Your task to perform on an android device: Go to display settings Image 0: 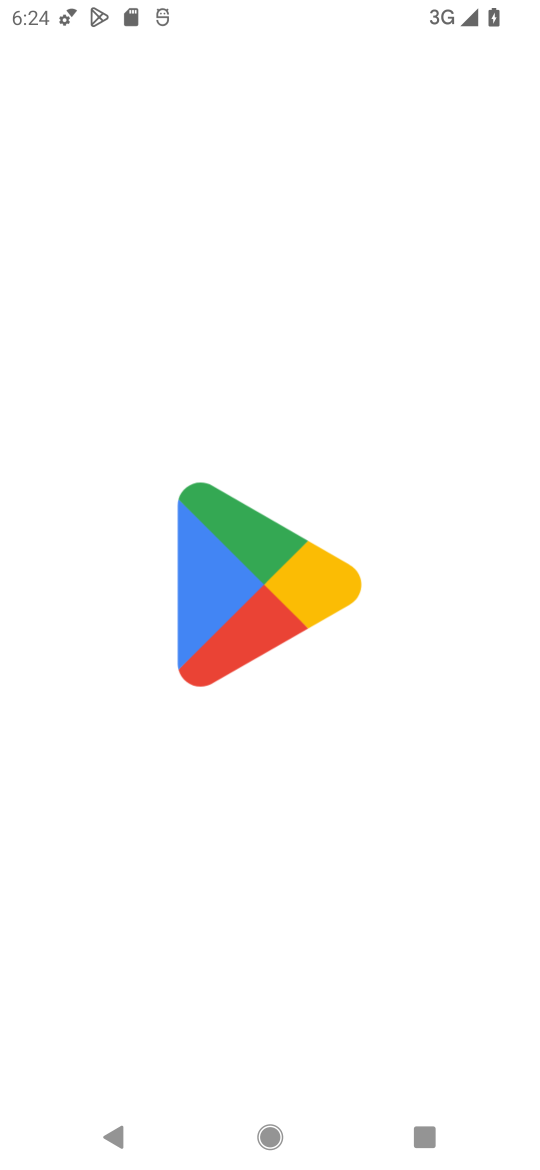
Step 0: press home button
Your task to perform on an android device: Go to display settings Image 1: 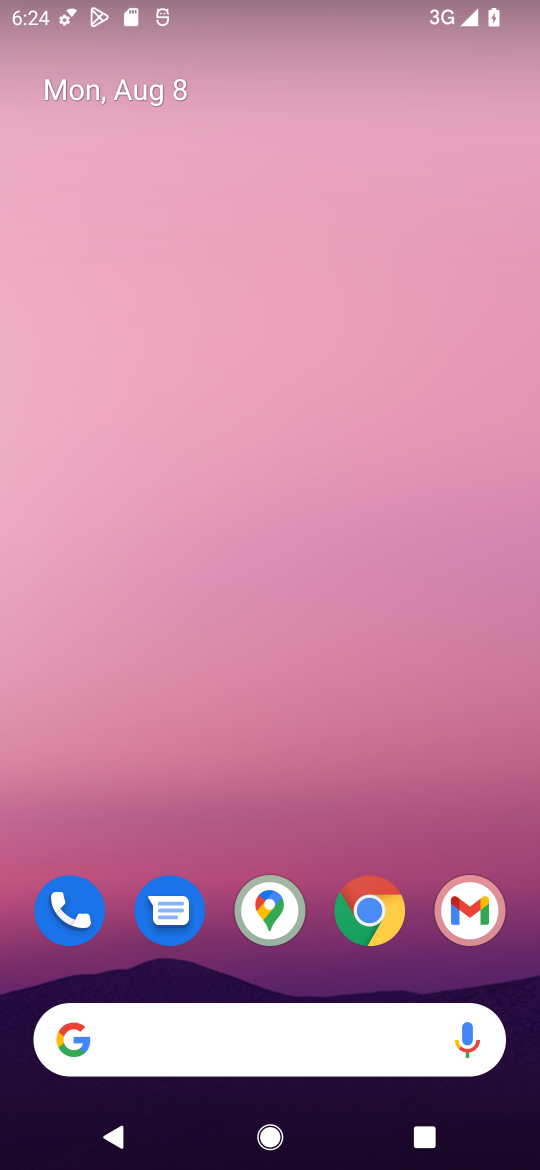
Step 1: drag from (173, 779) to (137, 133)
Your task to perform on an android device: Go to display settings Image 2: 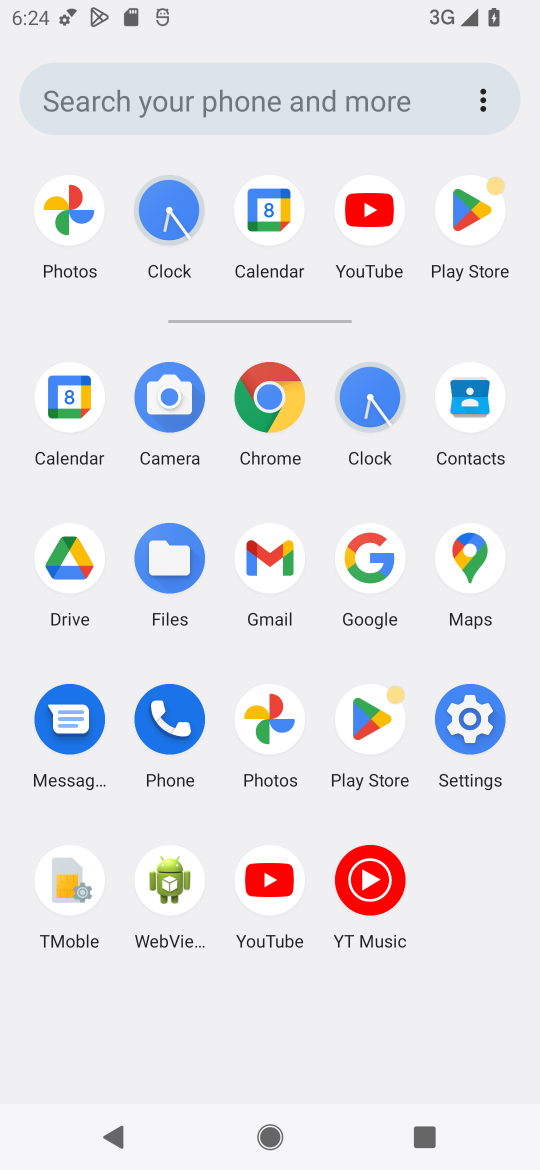
Step 2: click (453, 734)
Your task to perform on an android device: Go to display settings Image 3: 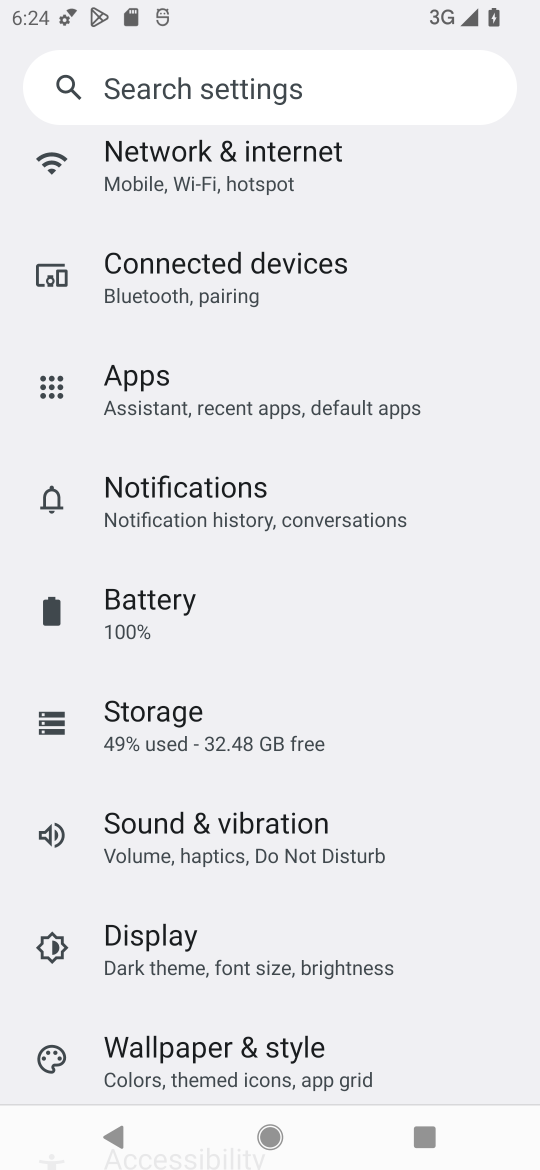
Step 3: click (212, 949)
Your task to perform on an android device: Go to display settings Image 4: 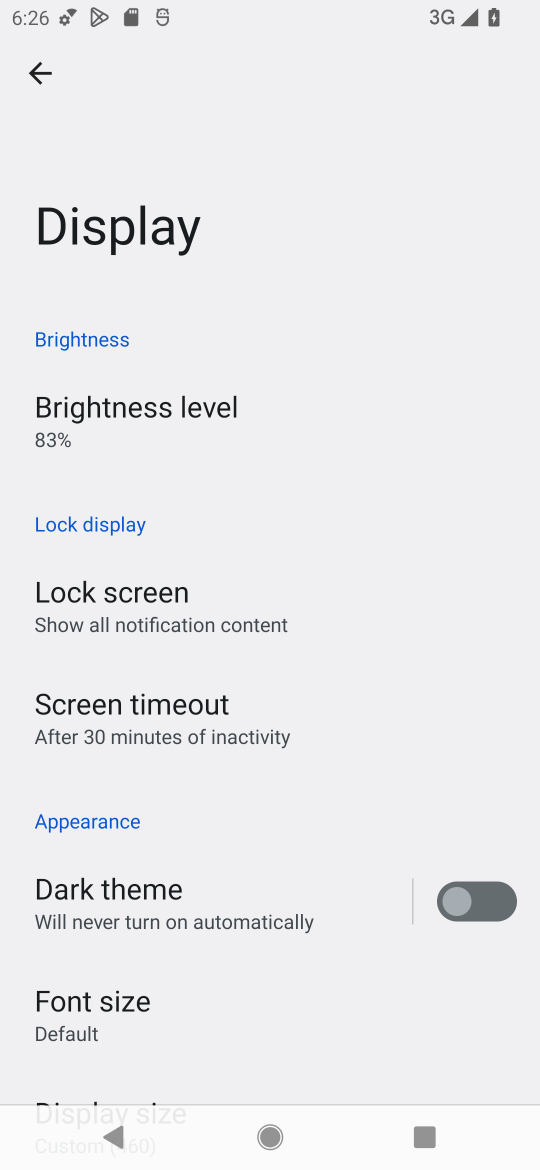
Step 4: task complete